Your task to perform on an android device: Search for Italian restaurants on Maps Image 0: 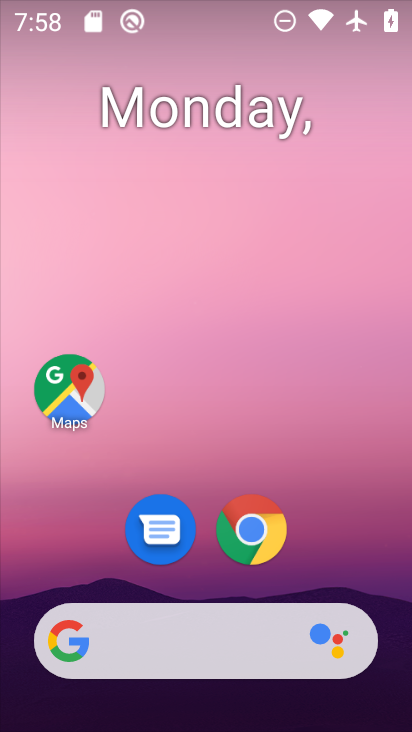
Step 0: click (62, 400)
Your task to perform on an android device: Search for Italian restaurants on Maps Image 1: 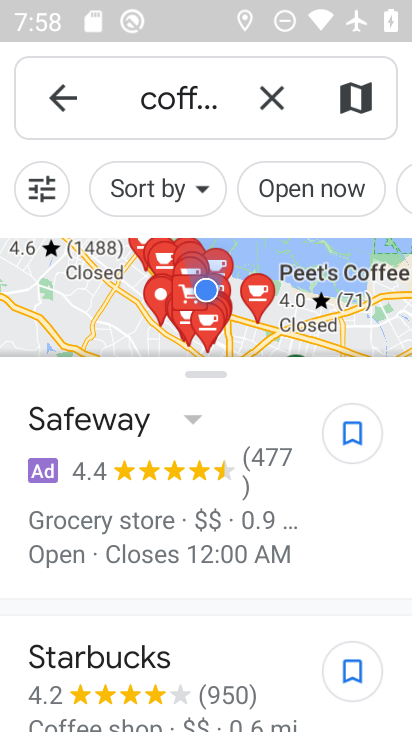
Step 1: click (262, 101)
Your task to perform on an android device: Search for Italian restaurants on Maps Image 2: 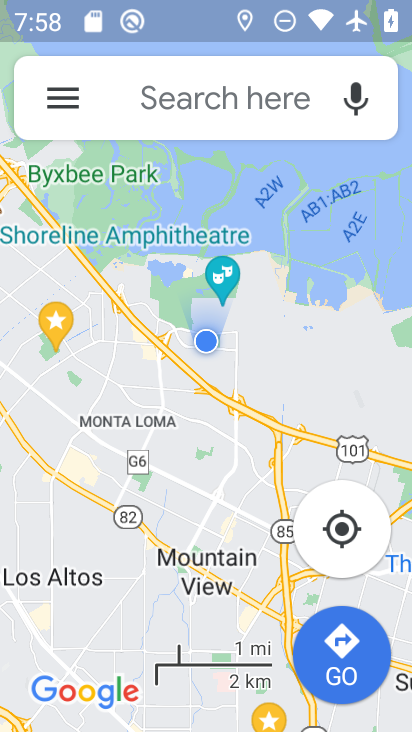
Step 2: click (251, 92)
Your task to perform on an android device: Search for Italian restaurants on Maps Image 3: 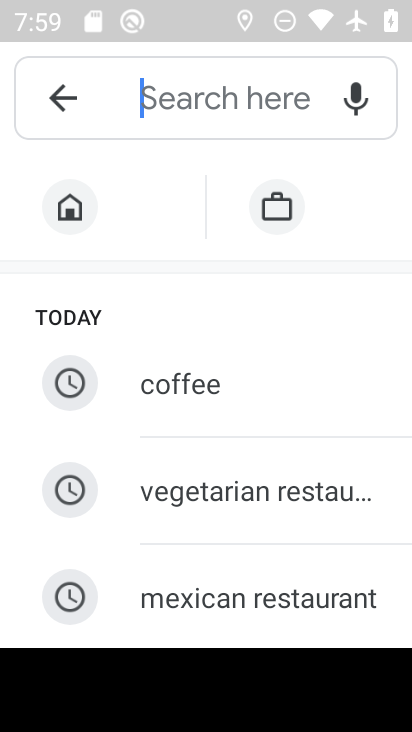
Step 3: type "italian "
Your task to perform on an android device: Search for Italian restaurants on Maps Image 4: 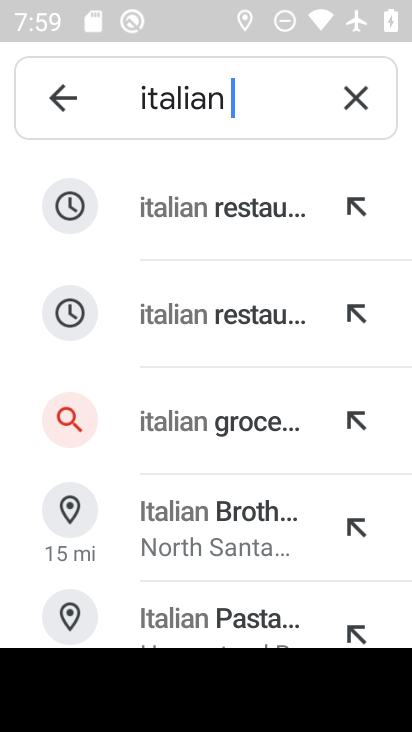
Step 4: click (250, 211)
Your task to perform on an android device: Search for Italian restaurants on Maps Image 5: 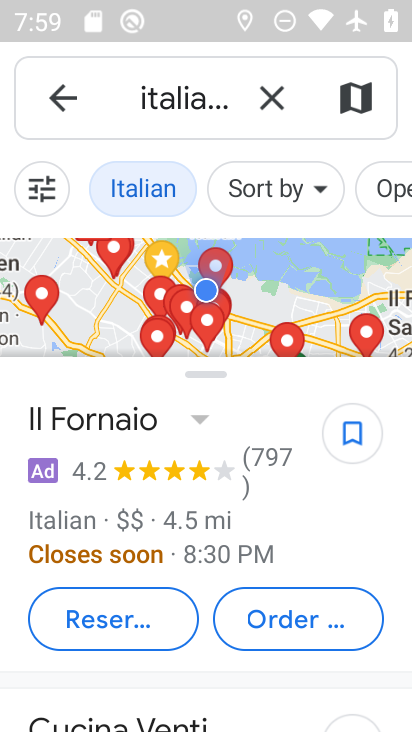
Step 5: task complete